Your task to perform on an android device: turn on wifi Image 0: 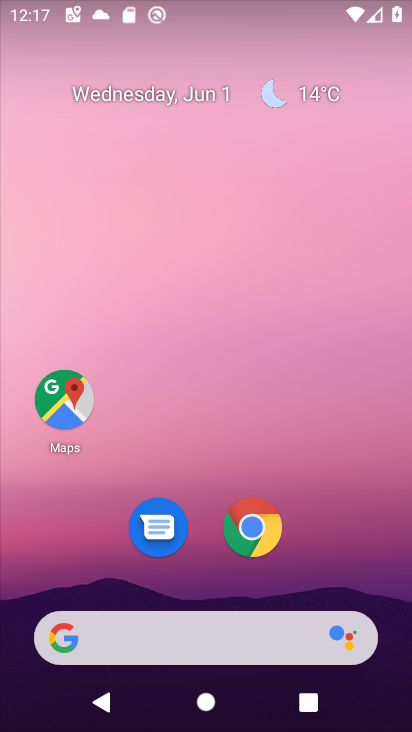
Step 0: drag from (324, 546) to (316, 10)
Your task to perform on an android device: turn on wifi Image 1: 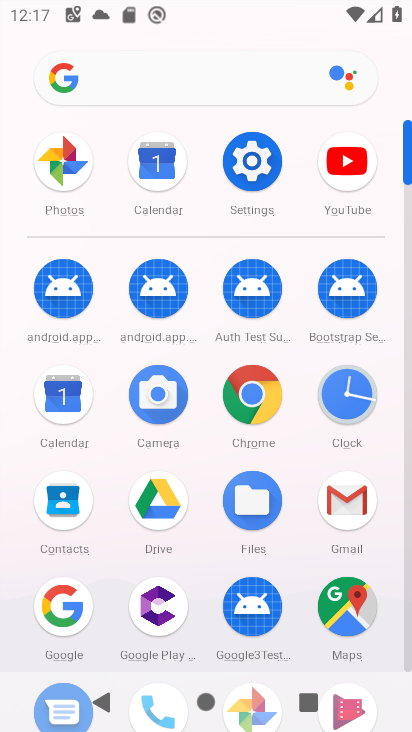
Step 1: click (248, 171)
Your task to perform on an android device: turn on wifi Image 2: 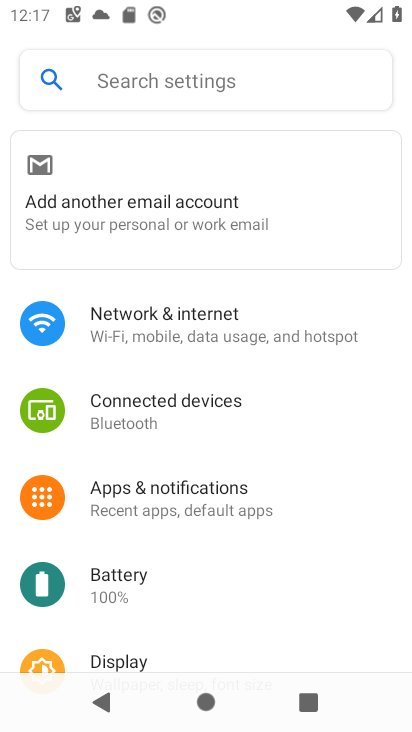
Step 2: click (149, 334)
Your task to perform on an android device: turn on wifi Image 3: 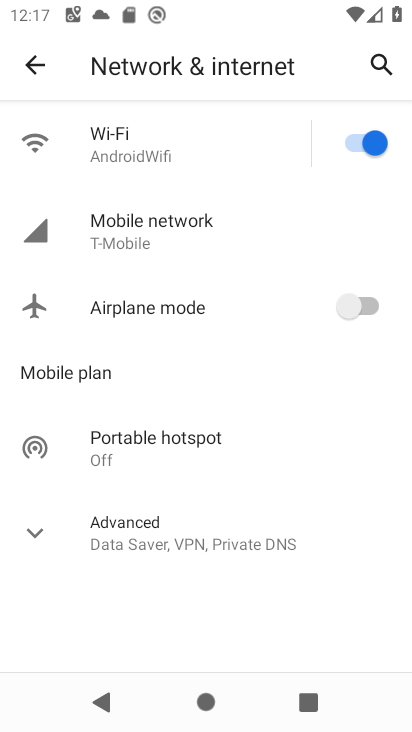
Step 3: task complete